Your task to perform on an android device: find photos in the google photos app Image 0: 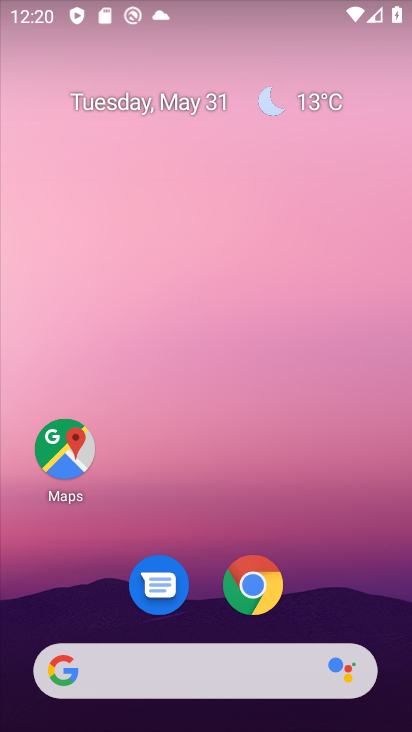
Step 0: drag from (249, 495) to (294, 14)
Your task to perform on an android device: find photos in the google photos app Image 1: 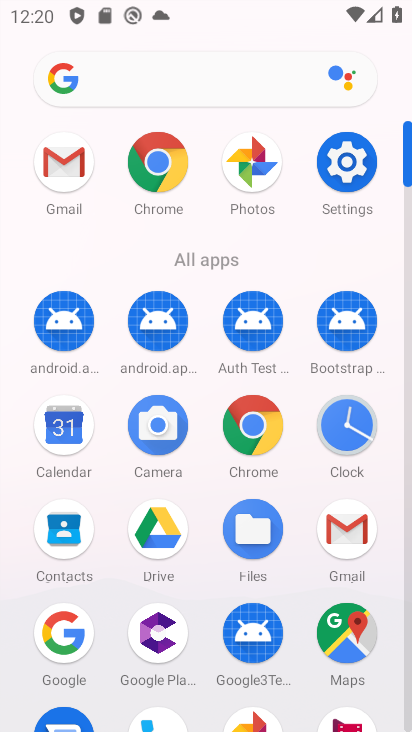
Step 1: click (260, 175)
Your task to perform on an android device: find photos in the google photos app Image 2: 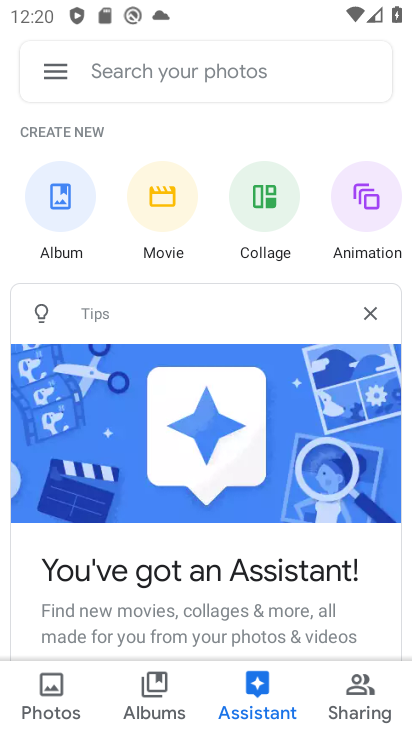
Step 2: click (52, 699)
Your task to perform on an android device: find photos in the google photos app Image 3: 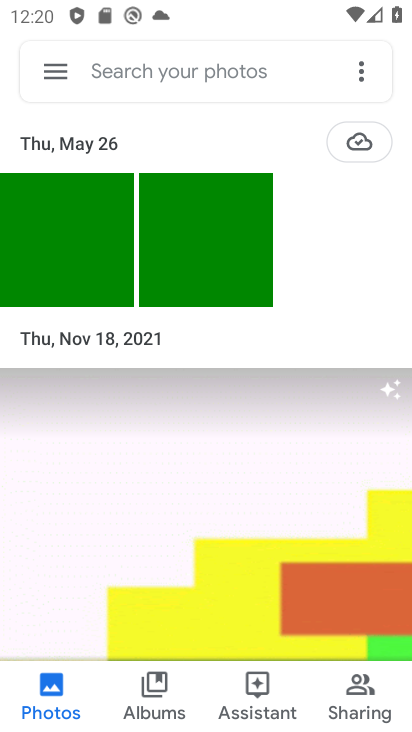
Step 3: task complete